Your task to perform on an android device: Show me popular games on the Play Store Image 0: 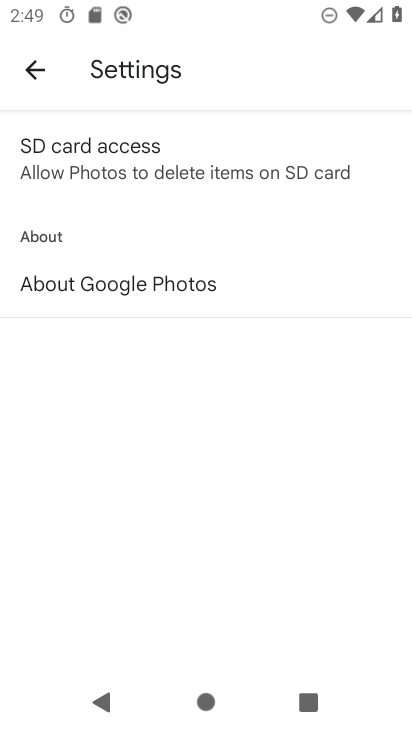
Step 0: press back button
Your task to perform on an android device: Show me popular games on the Play Store Image 1: 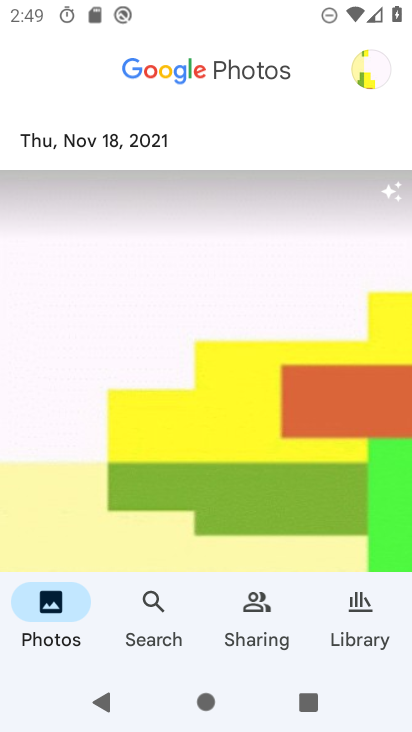
Step 1: press home button
Your task to perform on an android device: Show me popular games on the Play Store Image 2: 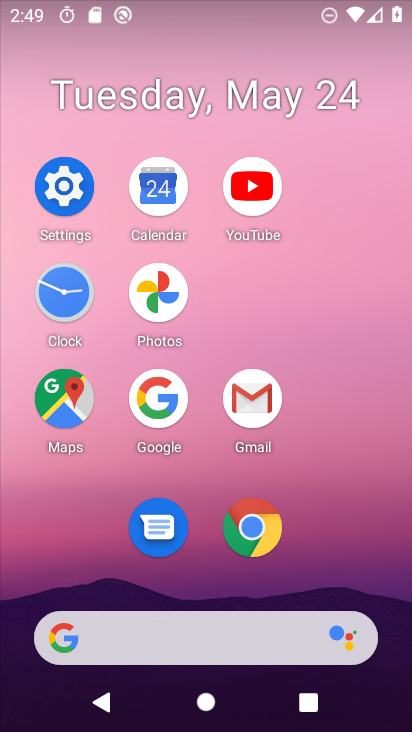
Step 2: drag from (313, 560) to (300, 79)
Your task to perform on an android device: Show me popular games on the Play Store Image 3: 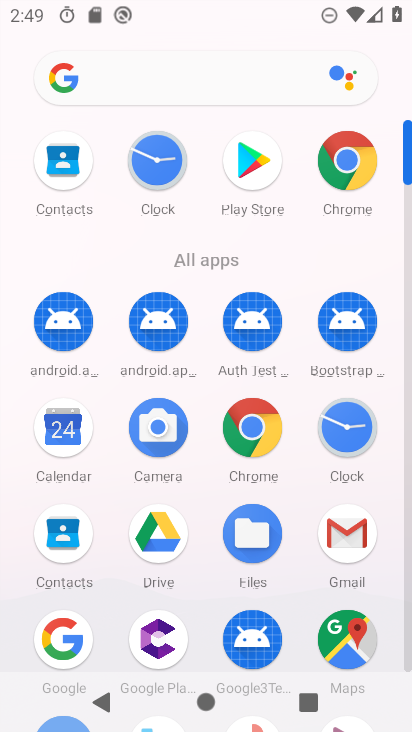
Step 3: click (256, 163)
Your task to perform on an android device: Show me popular games on the Play Store Image 4: 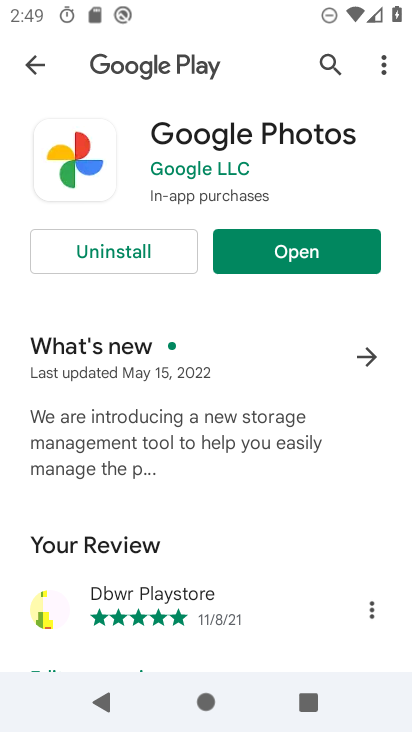
Step 4: click (22, 48)
Your task to perform on an android device: Show me popular games on the Play Store Image 5: 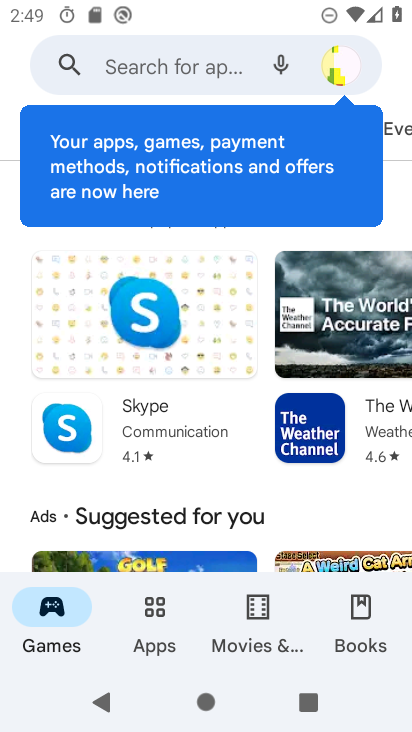
Step 5: drag from (313, 503) to (368, 238)
Your task to perform on an android device: Show me popular games on the Play Store Image 6: 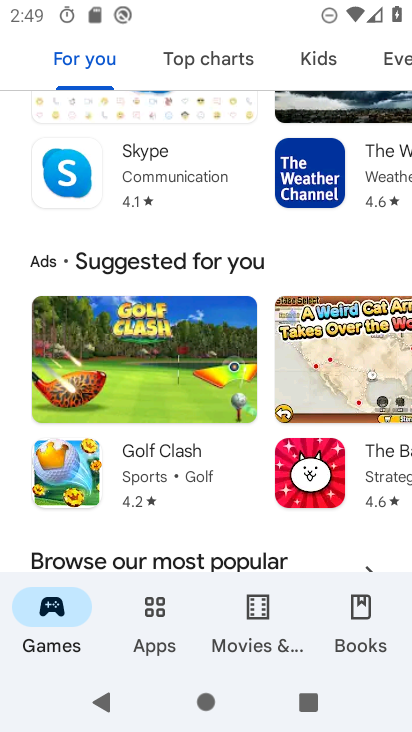
Step 6: drag from (302, 355) to (314, 166)
Your task to perform on an android device: Show me popular games on the Play Store Image 7: 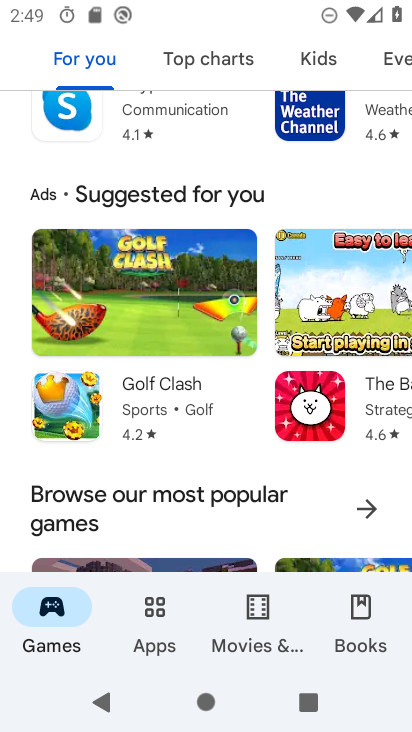
Step 7: click (269, 493)
Your task to perform on an android device: Show me popular games on the Play Store Image 8: 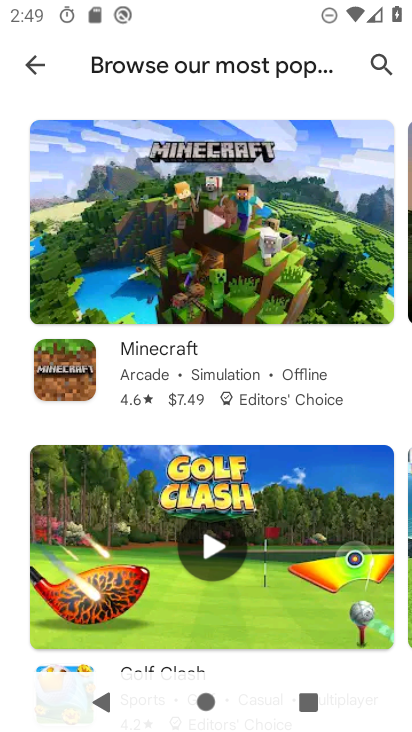
Step 8: task complete